Your task to perform on an android device: add a label to a message in the gmail app Image 0: 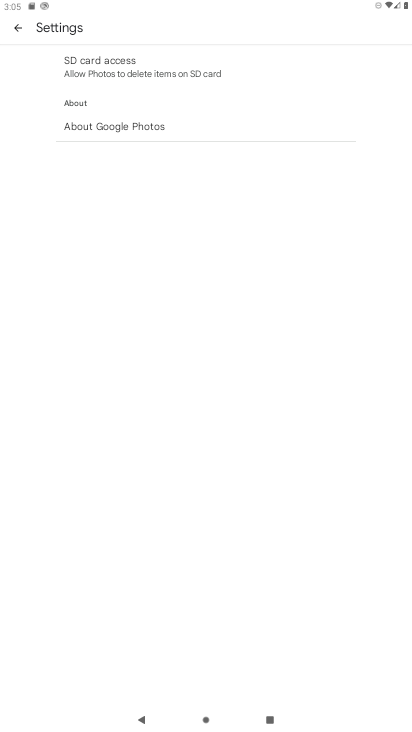
Step 0: press home button
Your task to perform on an android device: add a label to a message in the gmail app Image 1: 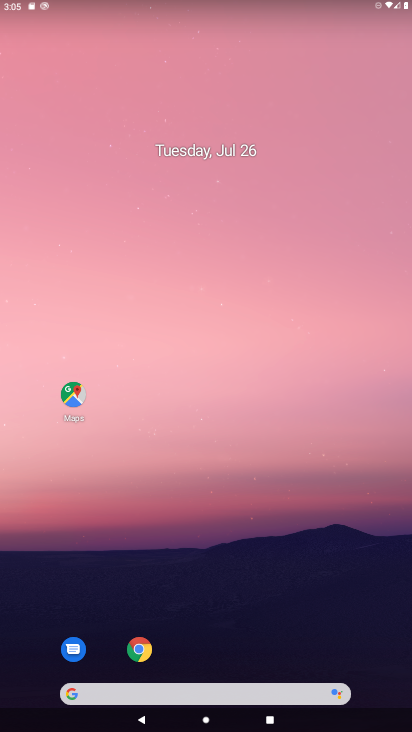
Step 1: drag from (209, 693) to (166, 154)
Your task to perform on an android device: add a label to a message in the gmail app Image 2: 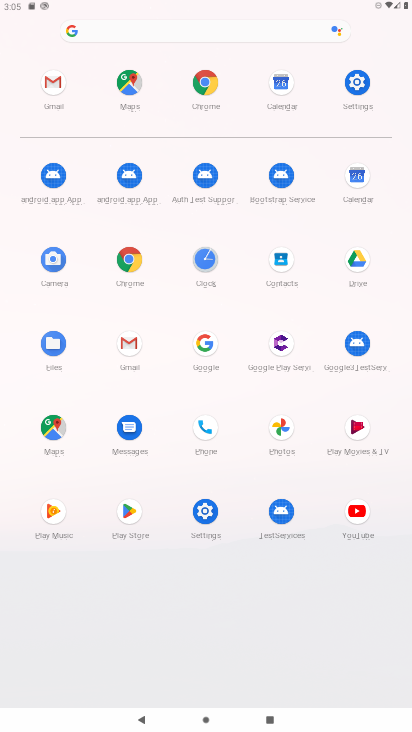
Step 2: click (128, 358)
Your task to perform on an android device: add a label to a message in the gmail app Image 3: 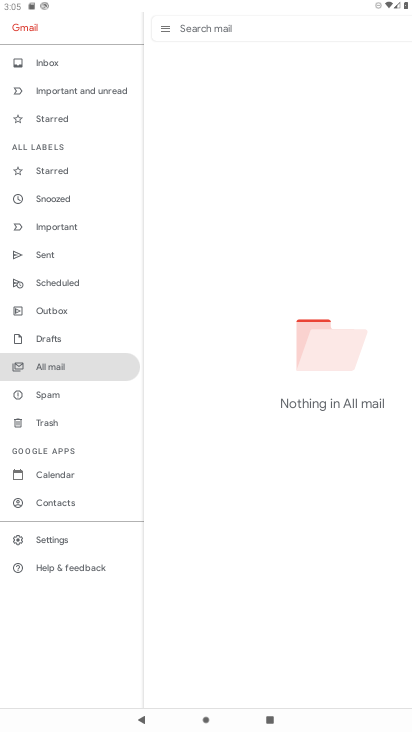
Step 3: click (93, 368)
Your task to perform on an android device: add a label to a message in the gmail app Image 4: 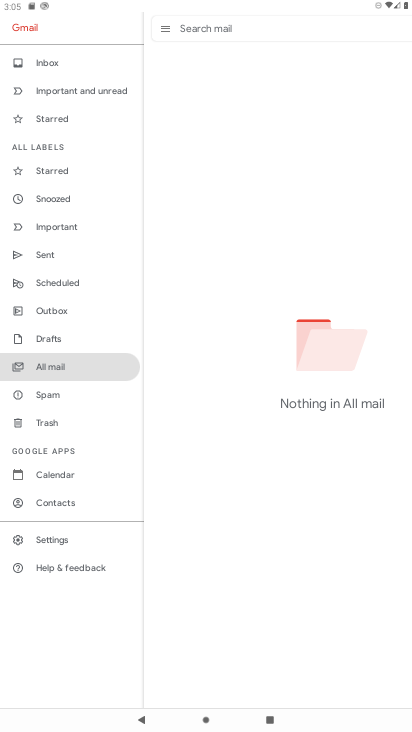
Step 4: task complete